Your task to perform on an android device: toggle improve location accuracy Image 0: 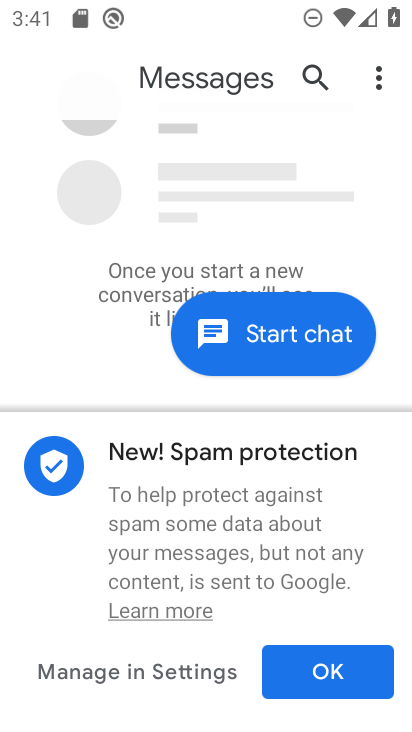
Step 0: press home button
Your task to perform on an android device: toggle improve location accuracy Image 1: 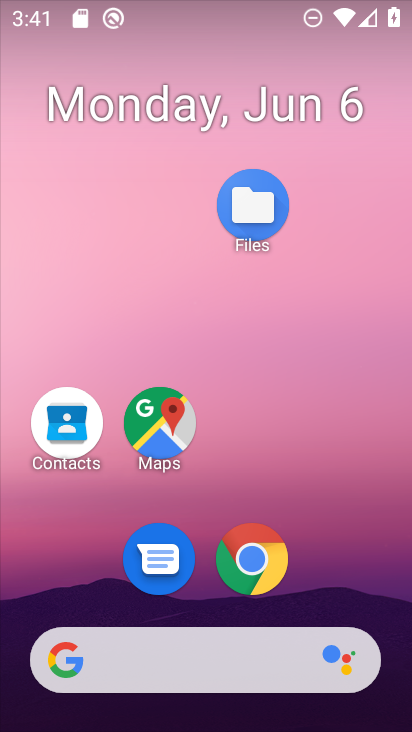
Step 1: drag from (191, 594) to (185, 101)
Your task to perform on an android device: toggle improve location accuracy Image 2: 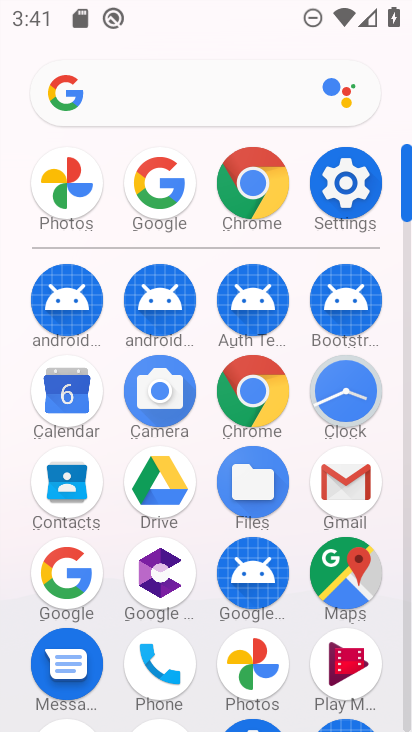
Step 2: click (359, 206)
Your task to perform on an android device: toggle improve location accuracy Image 3: 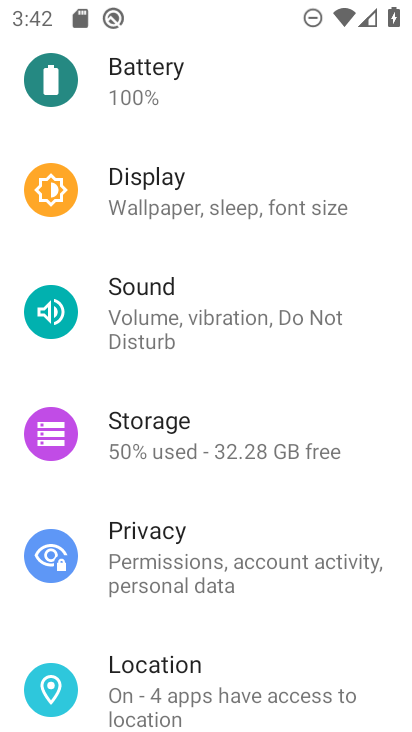
Step 3: click (181, 701)
Your task to perform on an android device: toggle improve location accuracy Image 4: 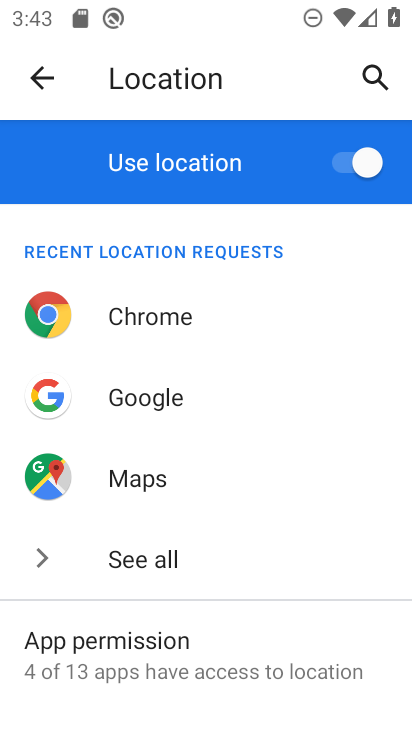
Step 4: drag from (180, 556) to (300, 22)
Your task to perform on an android device: toggle improve location accuracy Image 5: 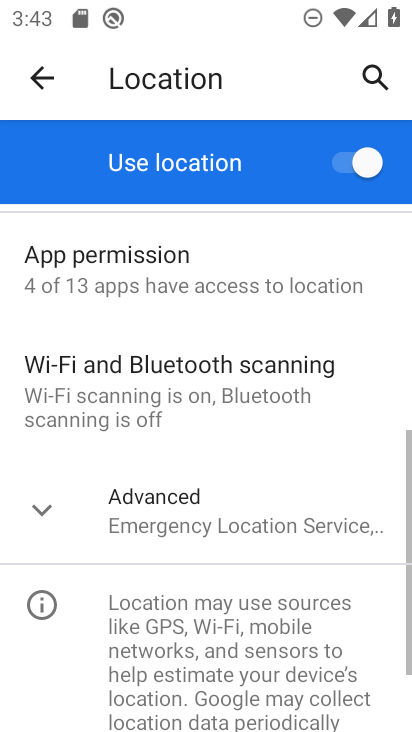
Step 5: click (145, 497)
Your task to perform on an android device: toggle improve location accuracy Image 6: 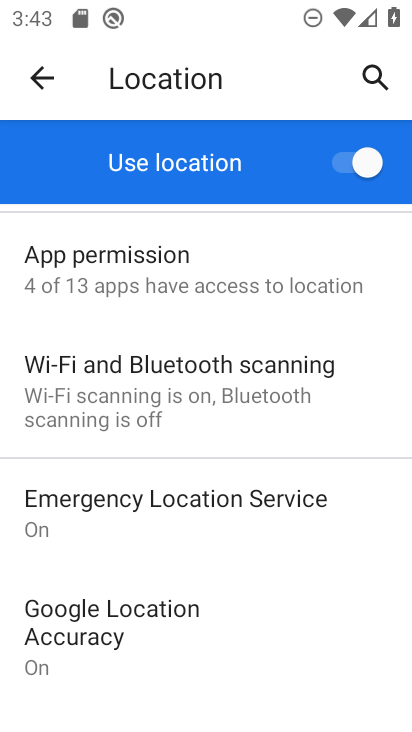
Step 6: drag from (146, 599) to (181, 386)
Your task to perform on an android device: toggle improve location accuracy Image 7: 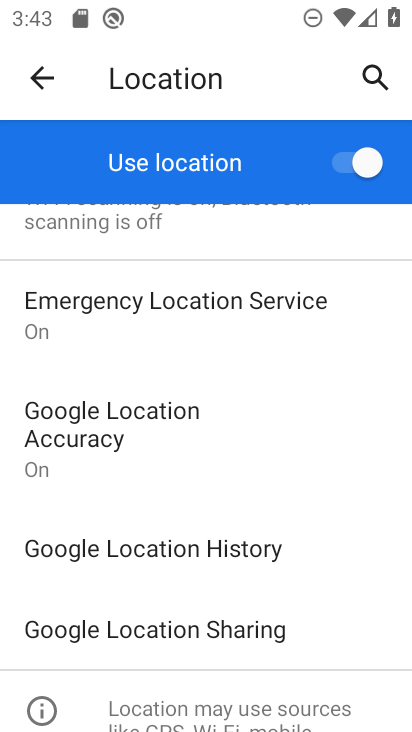
Step 7: click (130, 443)
Your task to perform on an android device: toggle improve location accuracy Image 8: 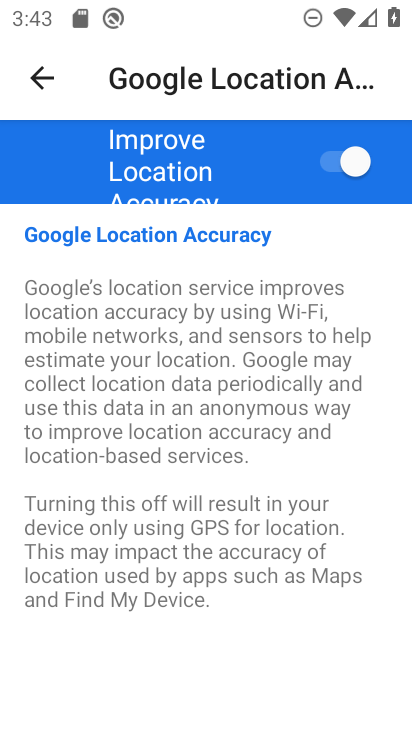
Step 8: click (324, 171)
Your task to perform on an android device: toggle improve location accuracy Image 9: 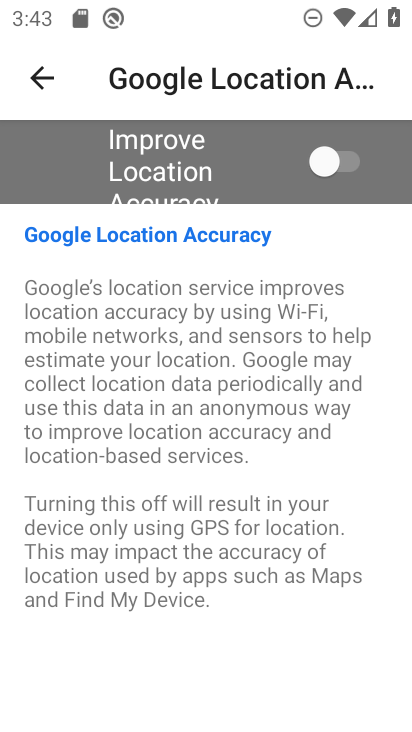
Step 9: task complete